Your task to perform on an android device: turn on the 12-hour format for clock Image 0: 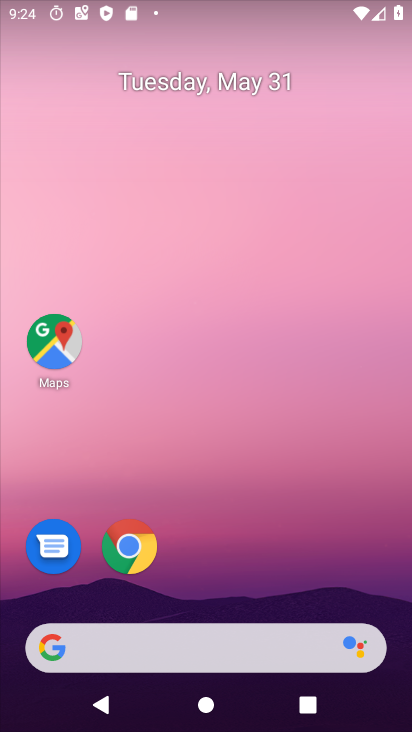
Step 0: drag from (257, 527) to (300, 121)
Your task to perform on an android device: turn on the 12-hour format for clock Image 1: 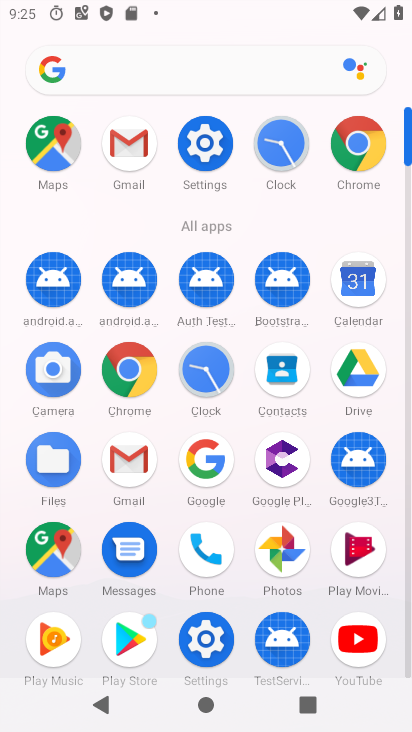
Step 1: click (281, 143)
Your task to perform on an android device: turn on the 12-hour format for clock Image 2: 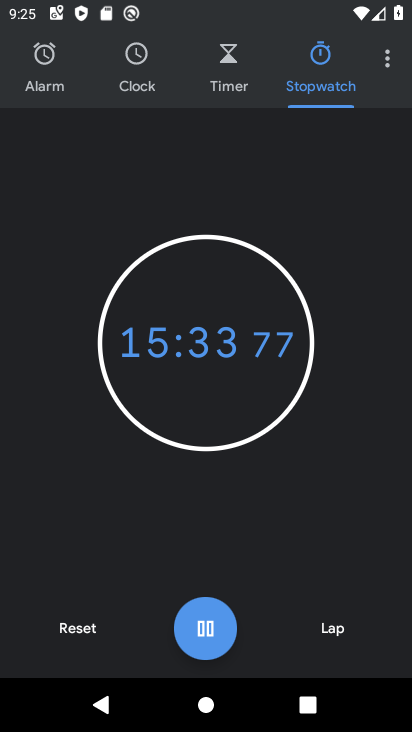
Step 2: click (388, 60)
Your task to perform on an android device: turn on the 12-hour format for clock Image 3: 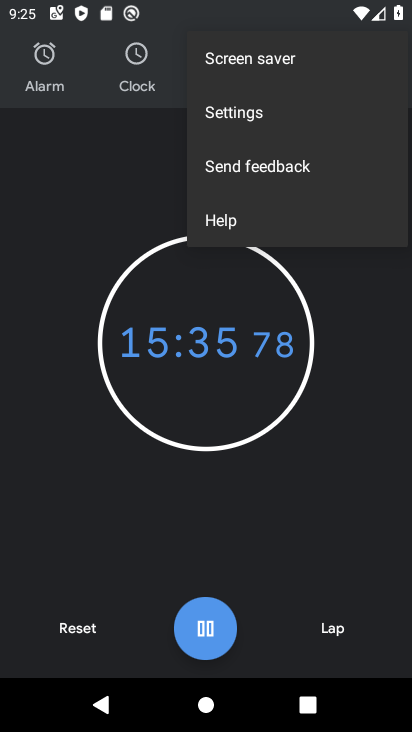
Step 3: click (247, 114)
Your task to perform on an android device: turn on the 12-hour format for clock Image 4: 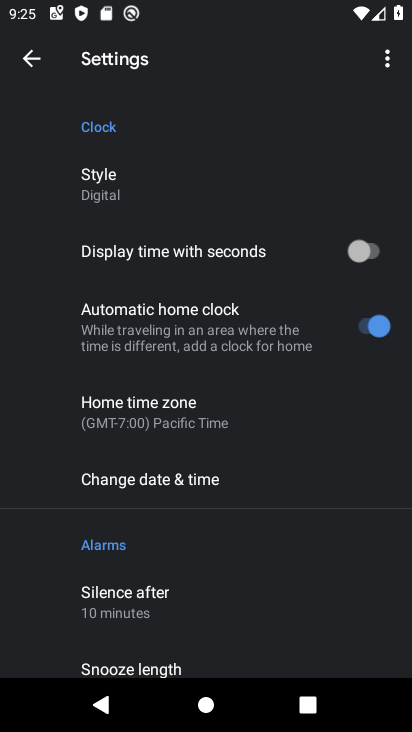
Step 4: click (145, 474)
Your task to perform on an android device: turn on the 12-hour format for clock Image 5: 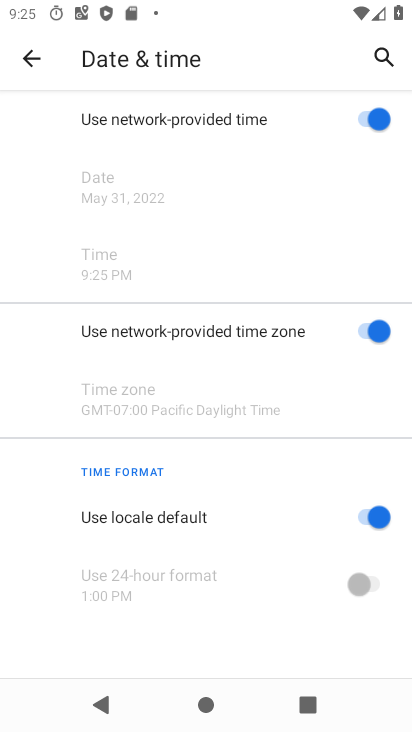
Step 5: task complete